Your task to perform on an android device: Show me recent news Image 0: 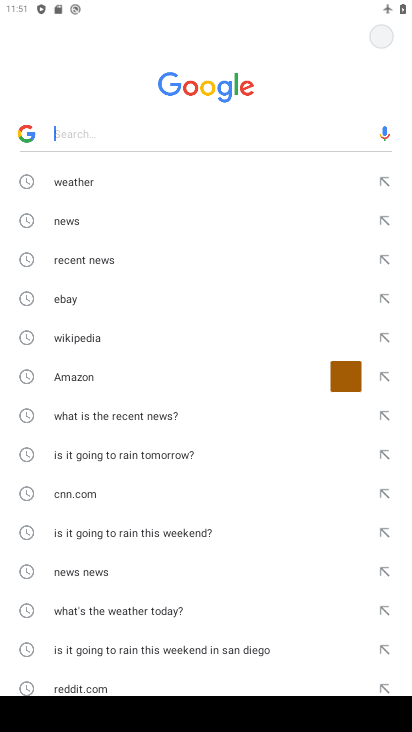
Step 0: press home button
Your task to perform on an android device: Show me recent news Image 1: 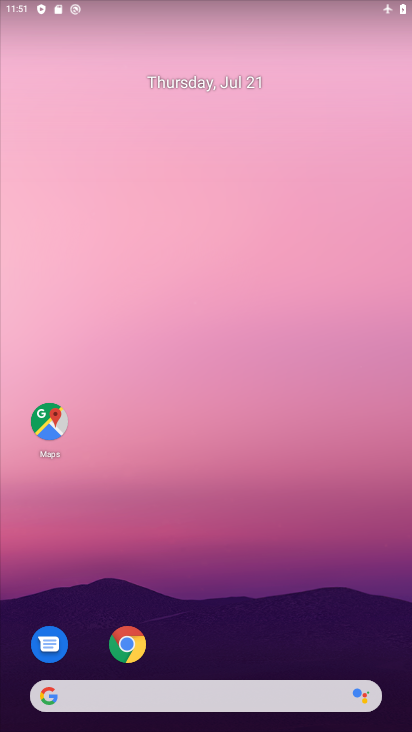
Step 1: drag from (246, 601) to (241, 102)
Your task to perform on an android device: Show me recent news Image 2: 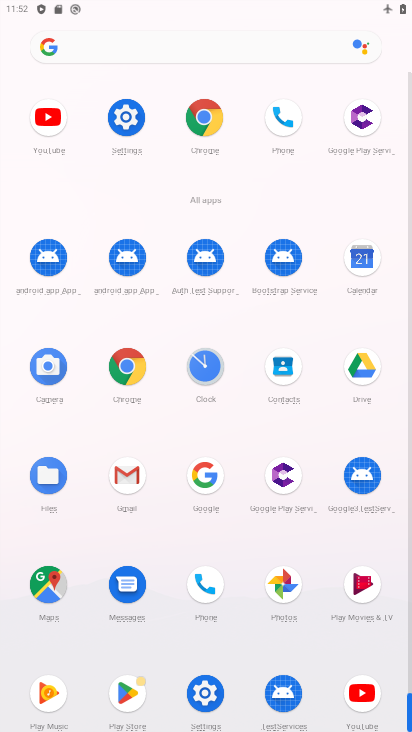
Step 2: click (209, 505)
Your task to perform on an android device: Show me recent news Image 3: 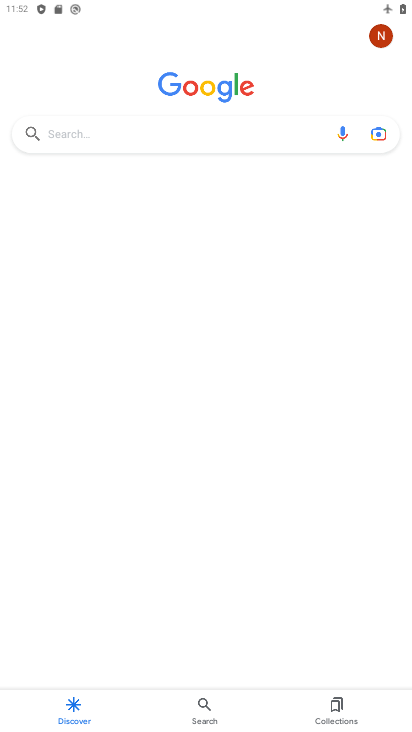
Step 3: click (167, 135)
Your task to perform on an android device: Show me recent news Image 4: 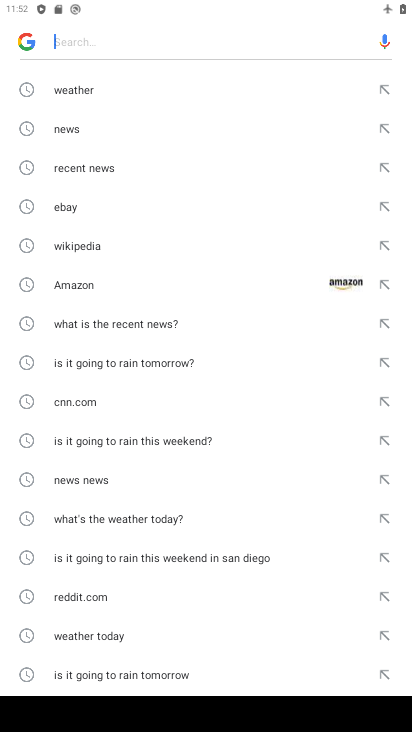
Step 4: click (109, 170)
Your task to perform on an android device: Show me recent news Image 5: 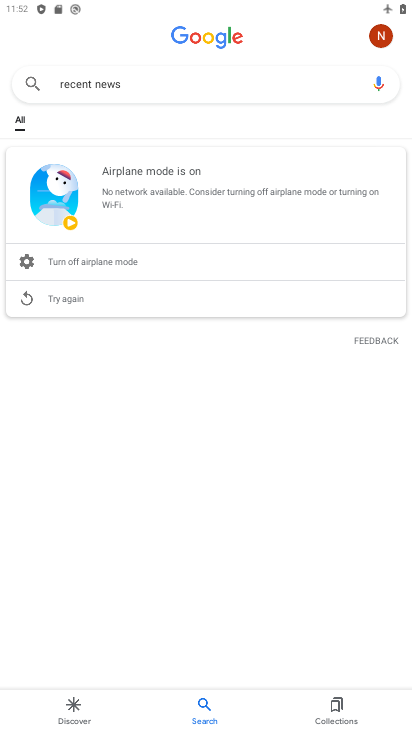
Step 5: task complete